Your task to perform on an android device: turn notification dots off Image 0: 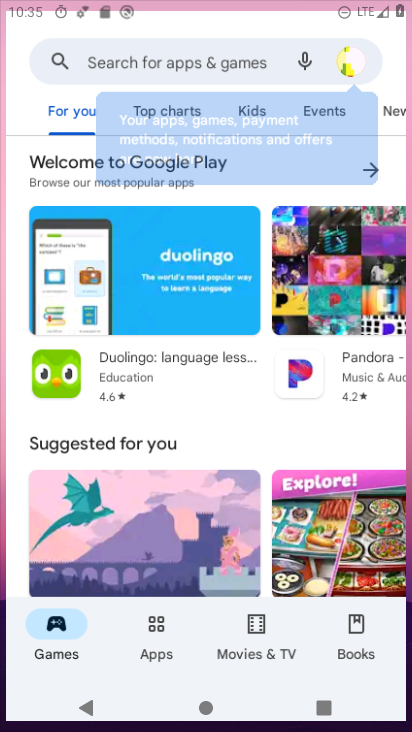
Step 0: drag from (225, 615) to (217, 252)
Your task to perform on an android device: turn notification dots off Image 1: 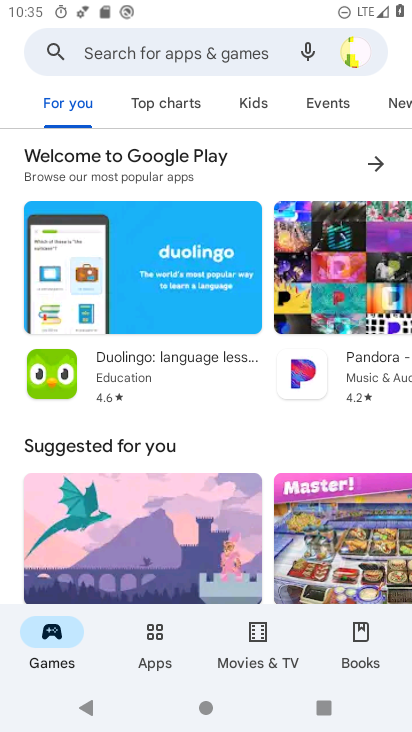
Step 1: press home button
Your task to perform on an android device: turn notification dots off Image 2: 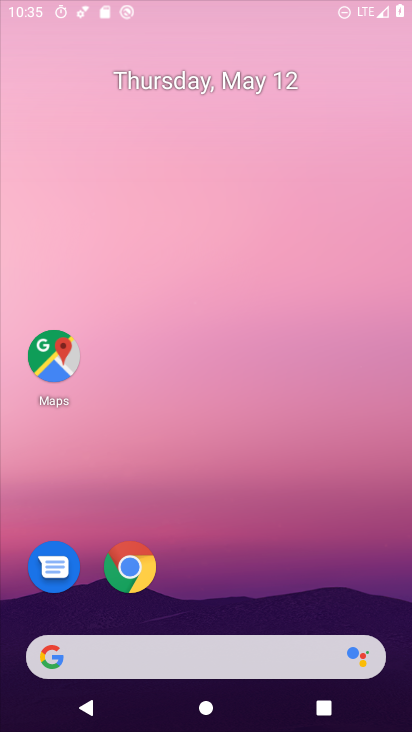
Step 2: drag from (246, 582) to (250, 219)
Your task to perform on an android device: turn notification dots off Image 3: 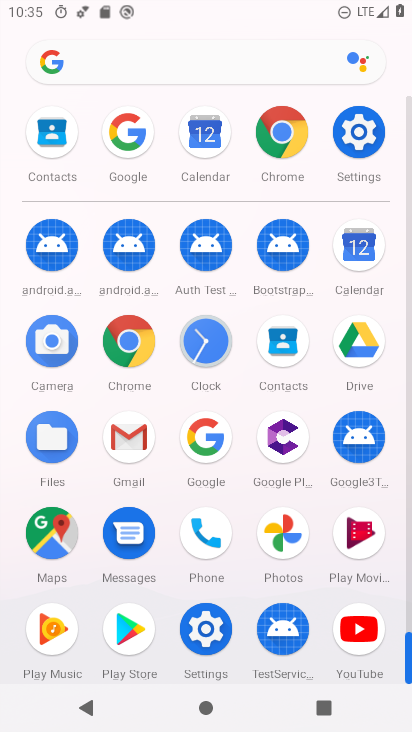
Step 3: click (375, 140)
Your task to perform on an android device: turn notification dots off Image 4: 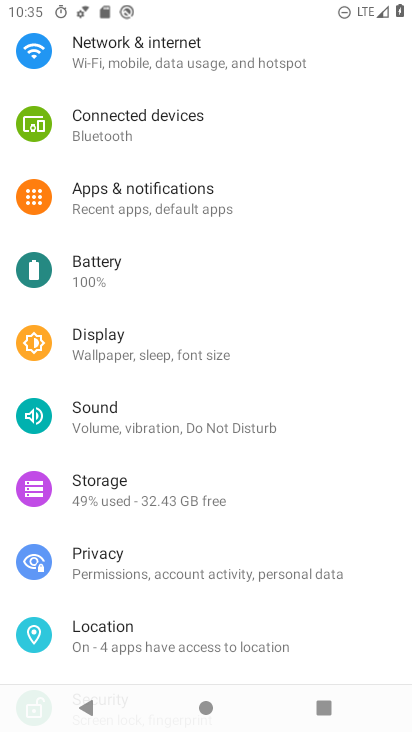
Step 4: click (165, 201)
Your task to perform on an android device: turn notification dots off Image 5: 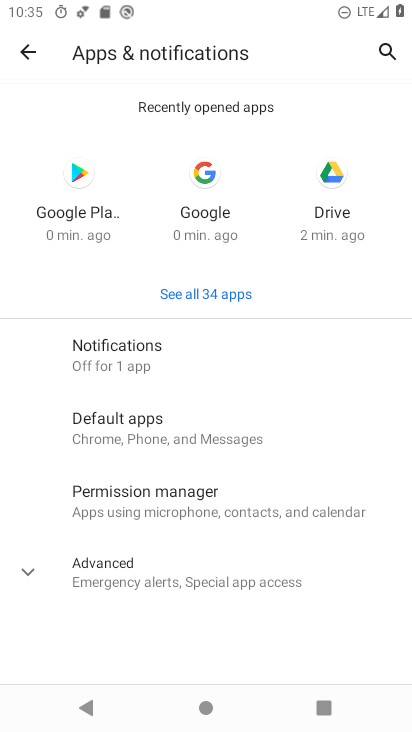
Step 5: click (197, 365)
Your task to perform on an android device: turn notification dots off Image 6: 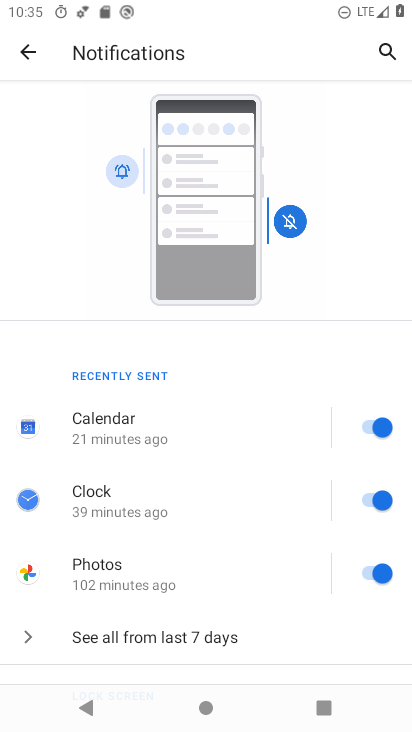
Step 6: click (27, 57)
Your task to perform on an android device: turn notification dots off Image 7: 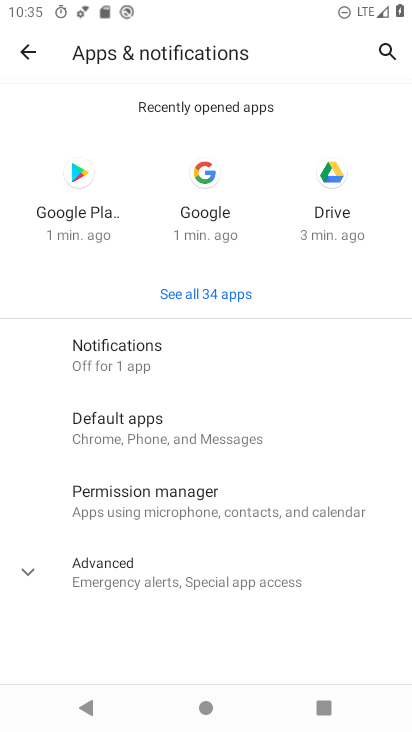
Step 7: click (188, 360)
Your task to perform on an android device: turn notification dots off Image 8: 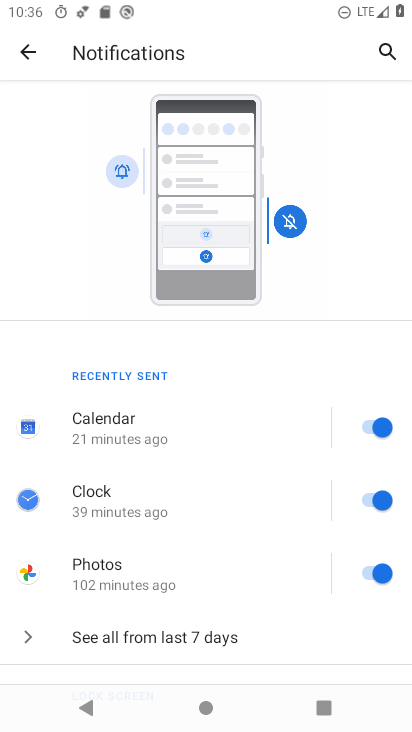
Step 8: drag from (186, 351) to (186, 185)
Your task to perform on an android device: turn notification dots off Image 9: 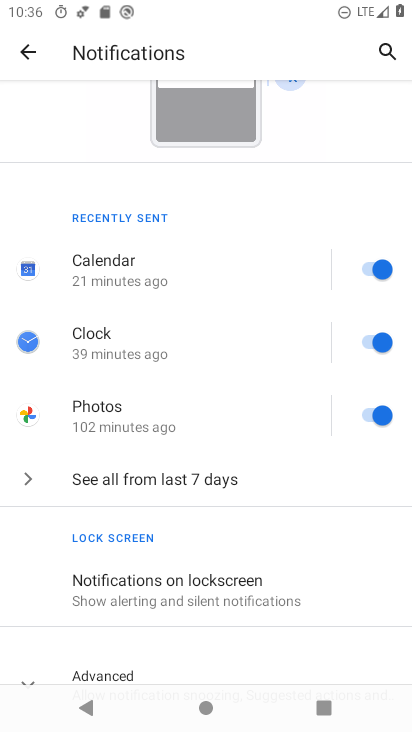
Step 9: drag from (228, 581) to (239, 429)
Your task to perform on an android device: turn notification dots off Image 10: 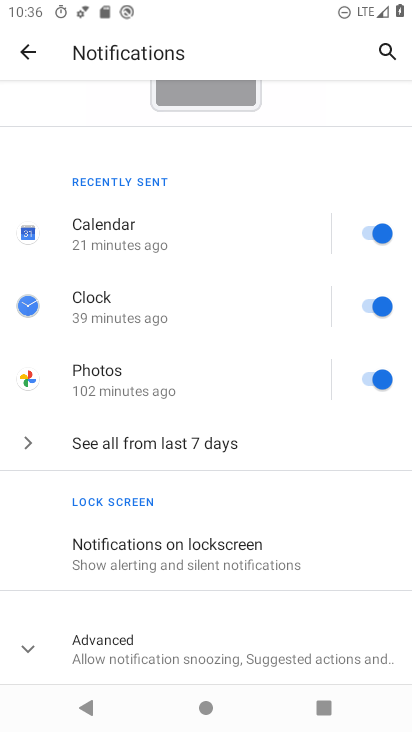
Step 10: click (211, 579)
Your task to perform on an android device: turn notification dots off Image 11: 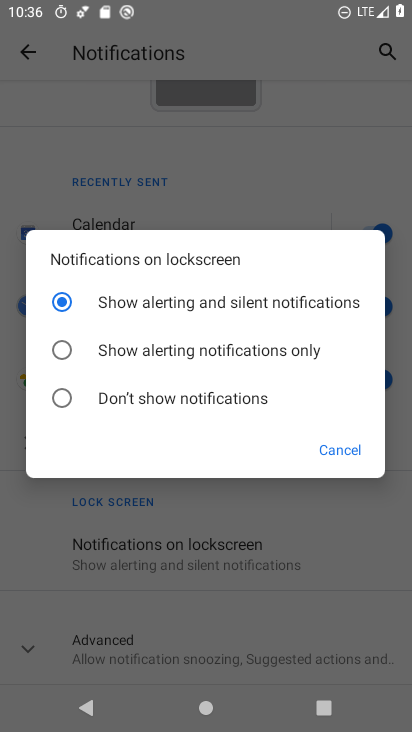
Step 11: click (351, 447)
Your task to perform on an android device: turn notification dots off Image 12: 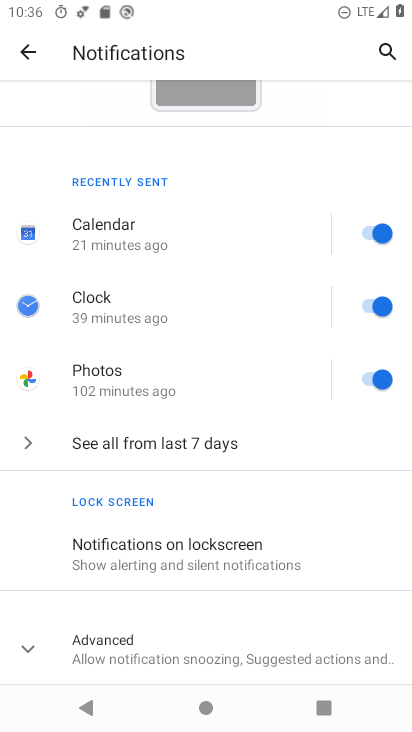
Step 12: drag from (192, 528) to (261, 178)
Your task to perform on an android device: turn notification dots off Image 13: 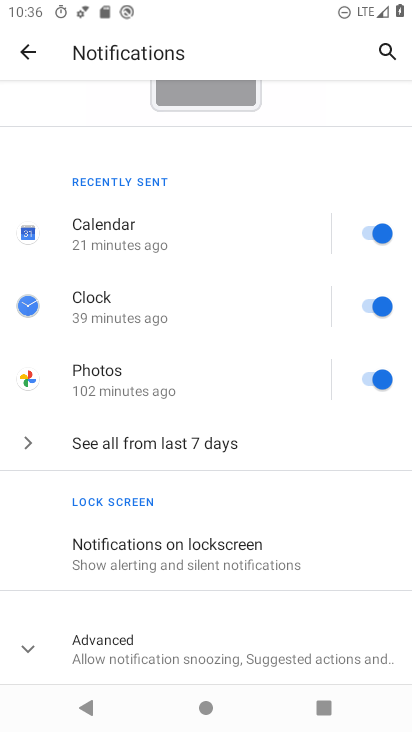
Step 13: click (154, 659)
Your task to perform on an android device: turn notification dots off Image 14: 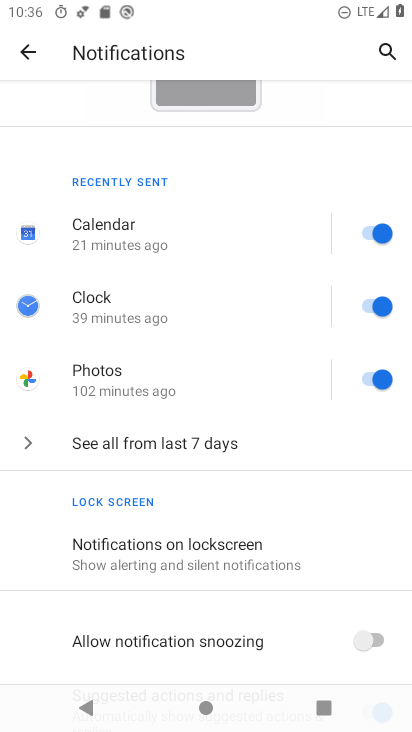
Step 14: drag from (181, 539) to (205, 282)
Your task to perform on an android device: turn notification dots off Image 15: 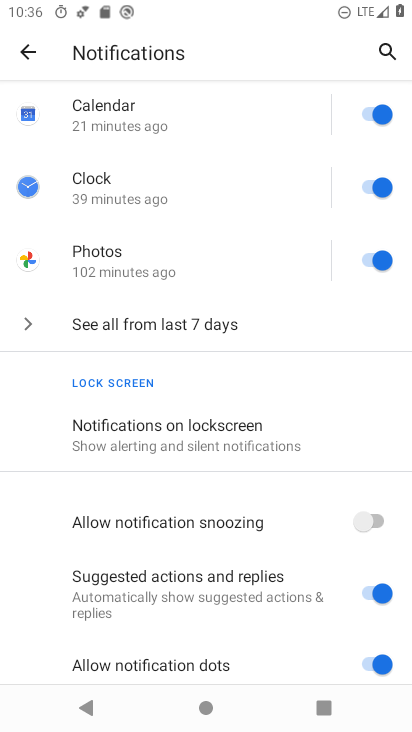
Step 15: drag from (191, 536) to (197, 275)
Your task to perform on an android device: turn notification dots off Image 16: 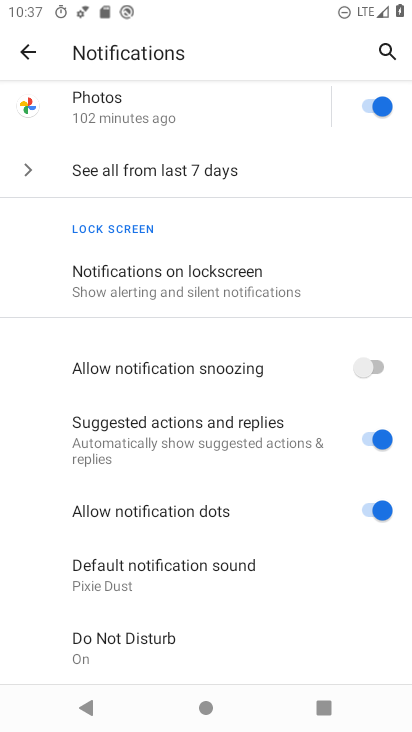
Step 16: click (369, 508)
Your task to perform on an android device: turn notification dots off Image 17: 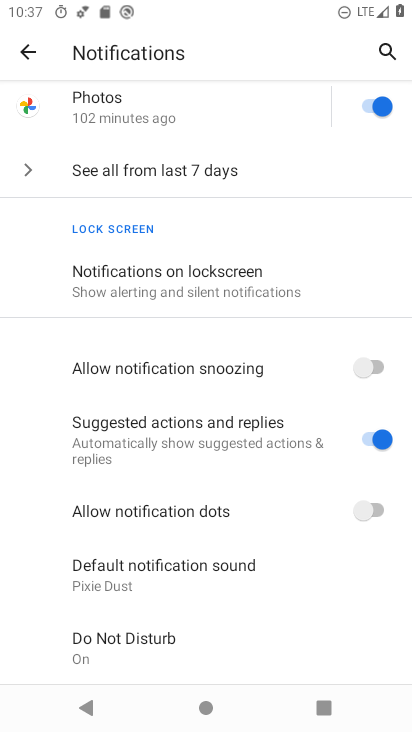
Step 17: task complete